Your task to perform on an android device: What's the weather? Image 0: 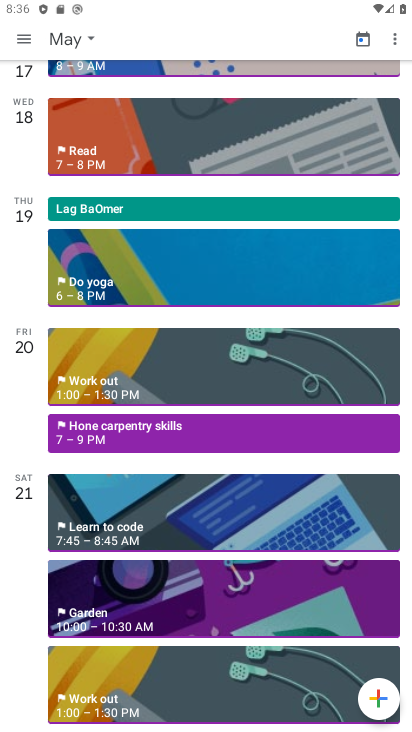
Step 0: press back button
Your task to perform on an android device: What's the weather? Image 1: 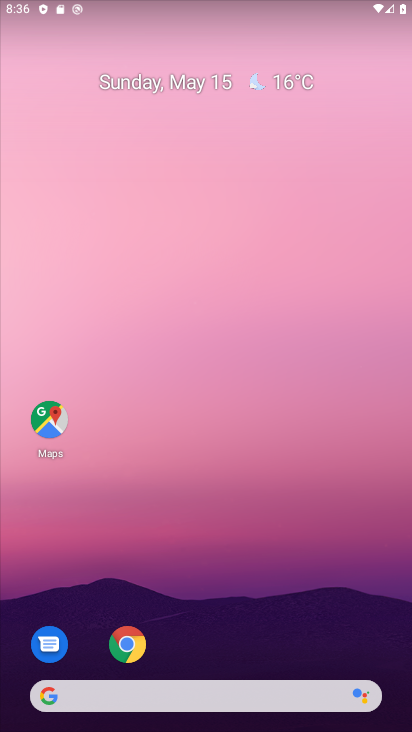
Step 1: click (271, 86)
Your task to perform on an android device: What's the weather? Image 2: 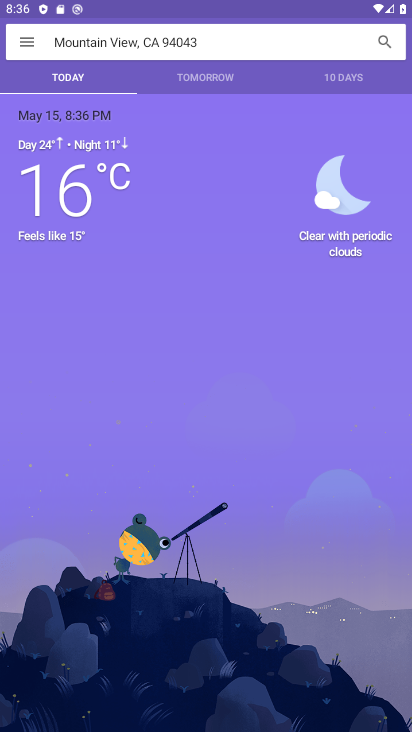
Step 2: task complete